Your task to perform on an android device: Open the phone app and click the voicemail tab. Image 0: 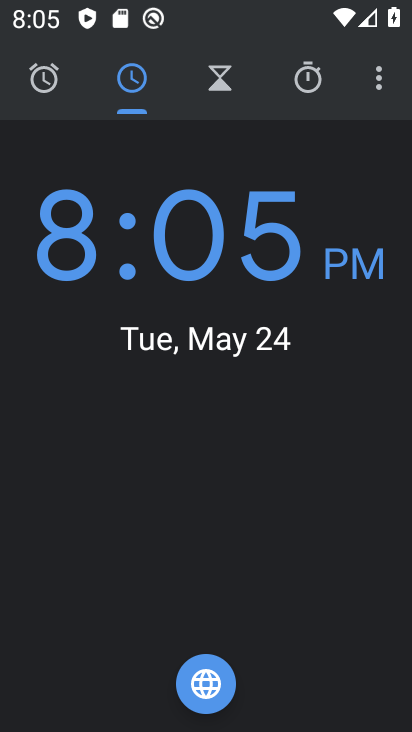
Step 0: press home button
Your task to perform on an android device: Open the phone app and click the voicemail tab. Image 1: 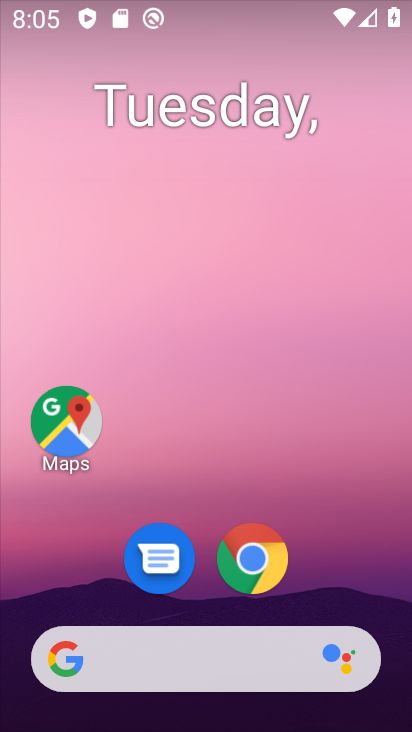
Step 1: drag from (209, 609) to (218, 211)
Your task to perform on an android device: Open the phone app and click the voicemail tab. Image 2: 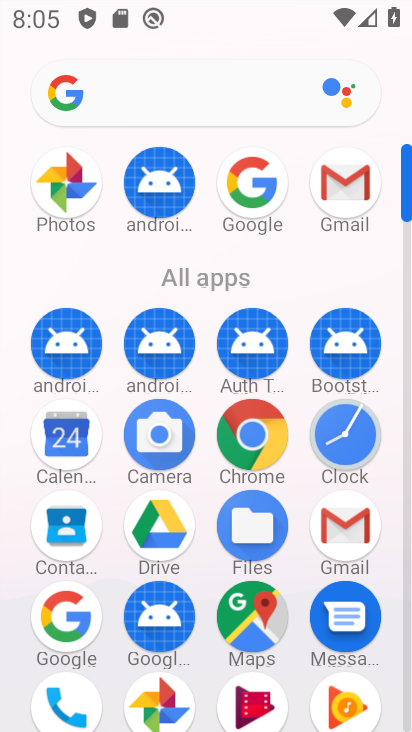
Step 2: click (71, 705)
Your task to perform on an android device: Open the phone app and click the voicemail tab. Image 3: 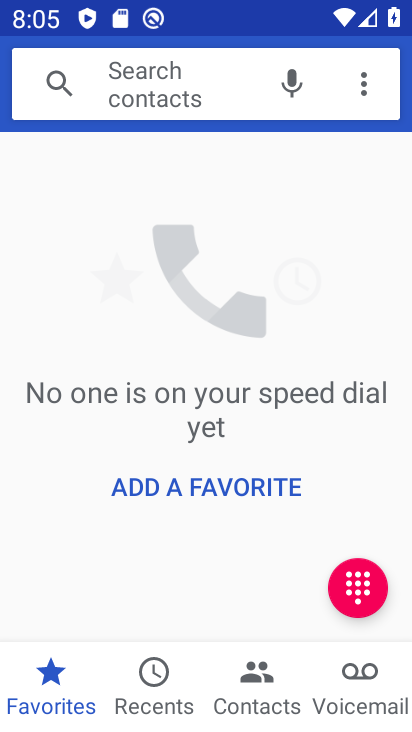
Step 3: click (342, 682)
Your task to perform on an android device: Open the phone app and click the voicemail tab. Image 4: 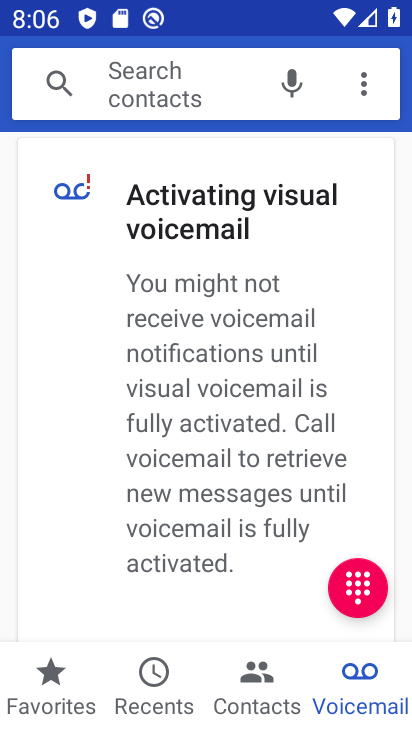
Step 4: task complete